Your task to perform on an android device: delete browsing data in the chrome app Image 0: 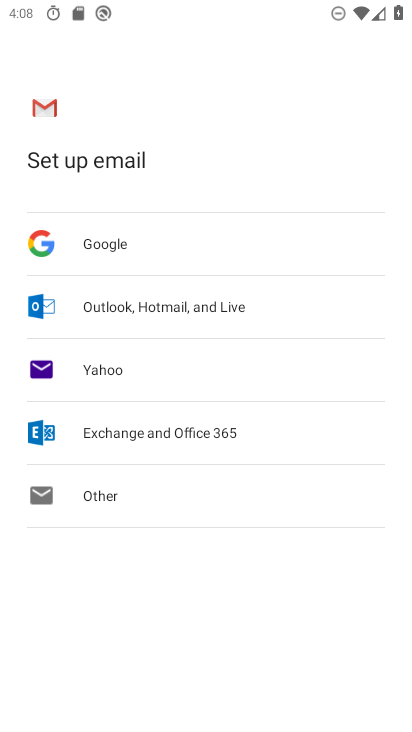
Step 0: press back button
Your task to perform on an android device: delete browsing data in the chrome app Image 1: 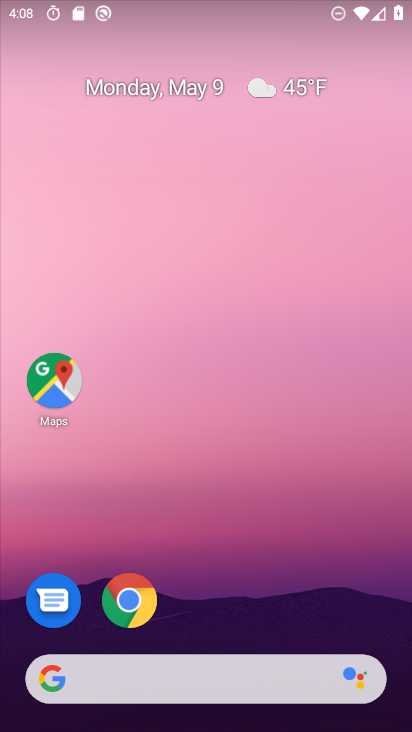
Step 1: drag from (268, 568) to (221, 6)
Your task to perform on an android device: delete browsing data in the chrome app Image 2: 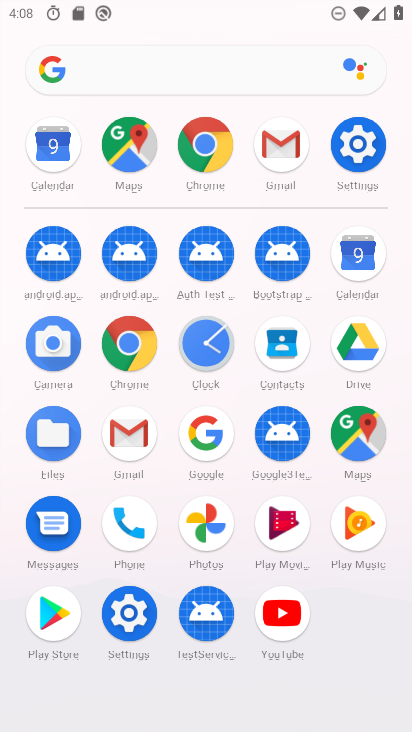
Step 2: drag from (2, 647) to (10, 346)
Your task to perform on an android device: delete browsing data in the chrome app Image 3: 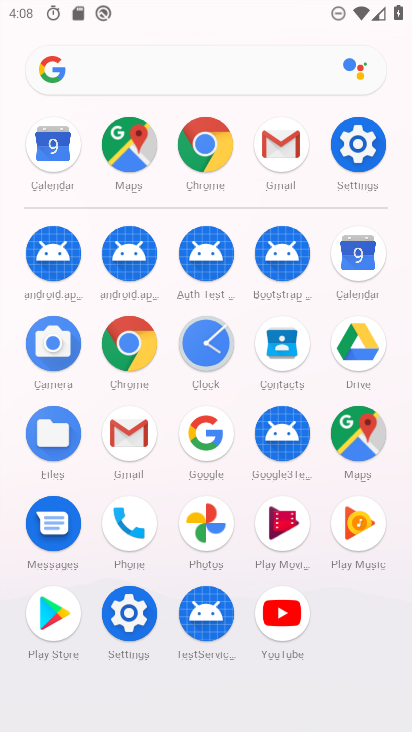
Step 3: click (128, 345)
Your task to perform on an android device: delete browsing data in the chrome app Image 4: 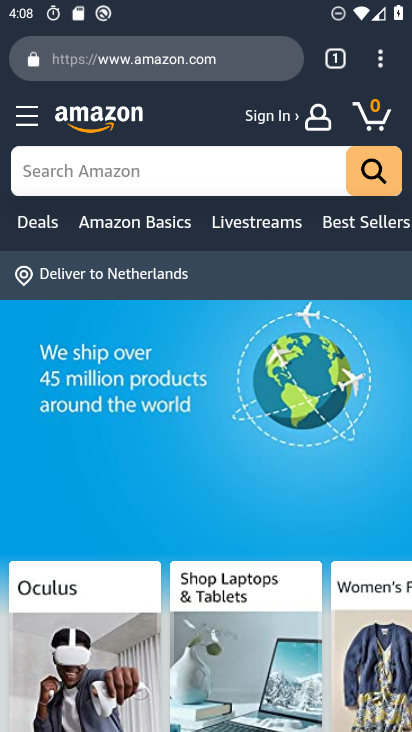
Step 4: drag from (382, 58) to (173, 320)
Your task to perform on an android device: delete browsing data in the chrome app Image 5: 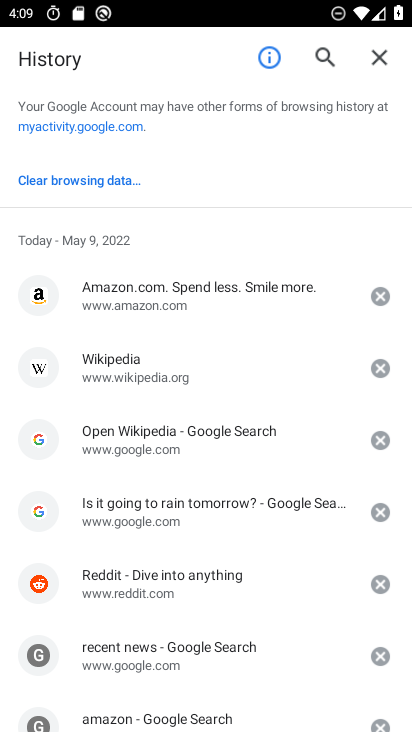
Step 5: click (105, 175)
Your task to perform on an android device: delete browsing data in the chrome app Image 6: 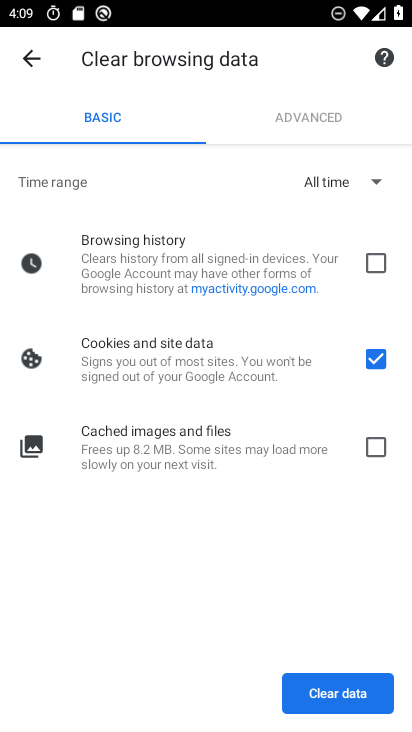
Step 6: click (324, 705)
Your task to perform on an android device: delete browsing data in the chrome app Image 7: 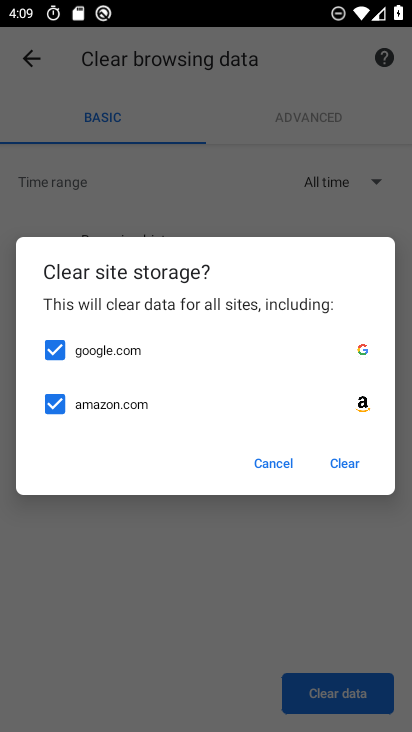
Step 7: click (357, 456)
Your task to perform on an android device: delete browsing data in the chrome app Image 8: 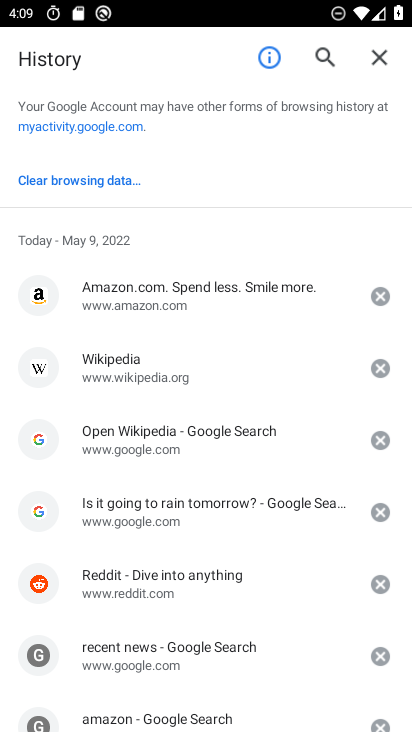
Step 8: task complete